Your task to perform on an android device: Go to sound settings Image 0: 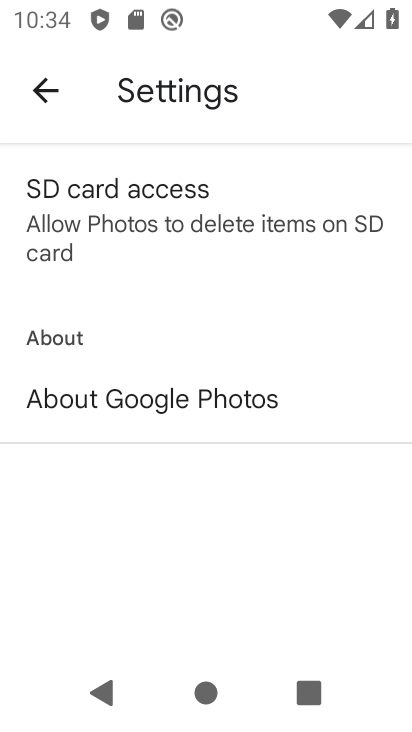
Step 0: press home button
Your task to perform on an android device: Go to sound settings Image 1: 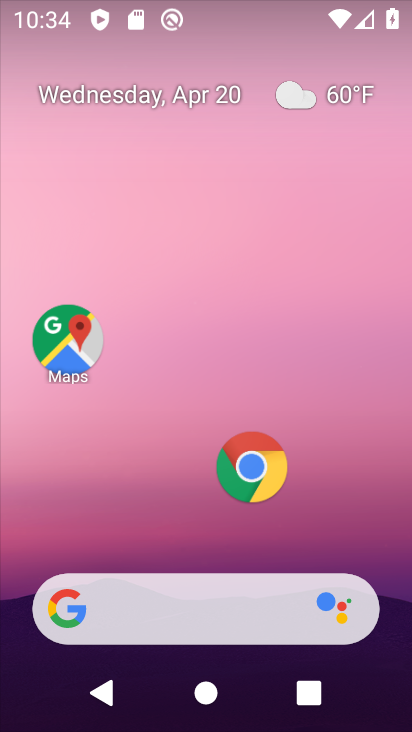
Step 1: drag from (329, 538) to (284, 85)
Your task to perform on an android device: Go to sound settings Image 2: 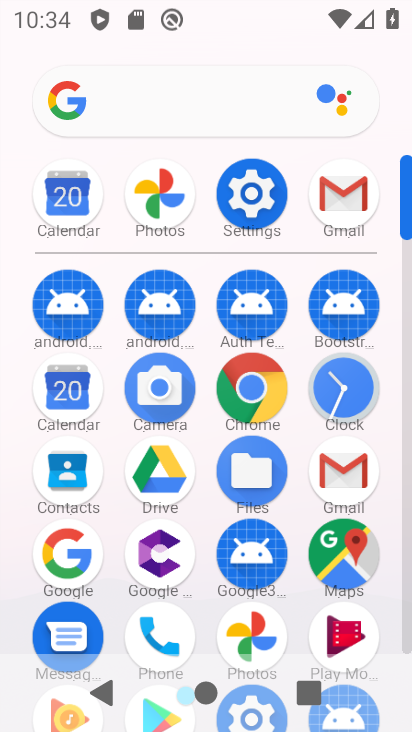
Step 2: click (248, 200)
Your task to perform on an android device: Go to sound settings Image 3: 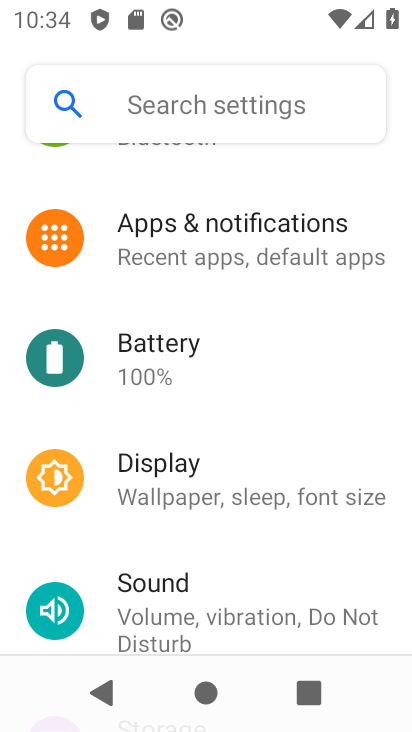
Step 3: click (232, 620)
Your task to perform on an android device: Go to sound settings Image 4: 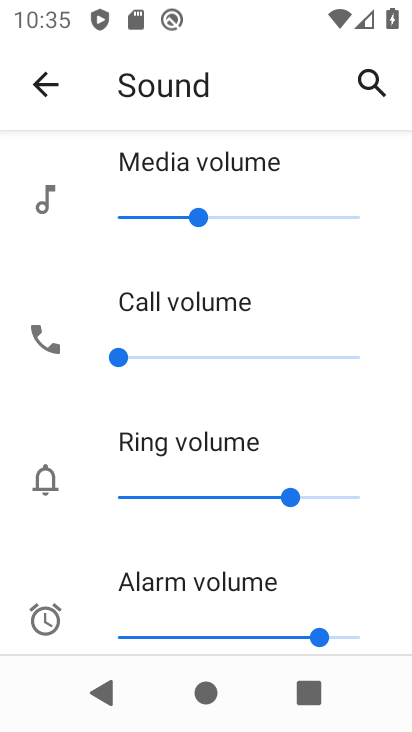
Step 4: task complete